Your task to perform on an android device: turn off location Image 0: 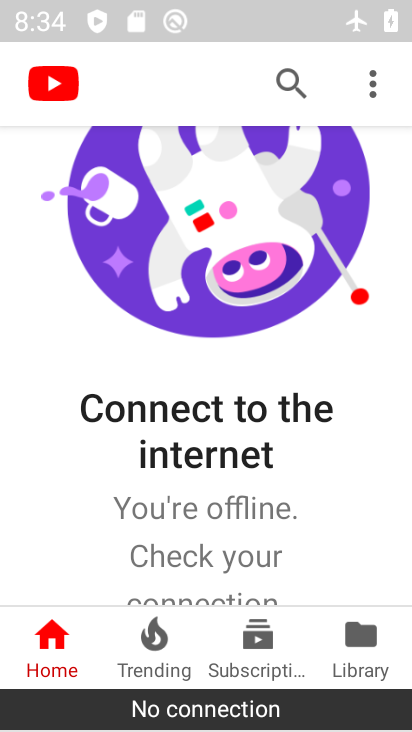
Step 0: press home button
Your task to perform on an android device: turn off location Image 1: 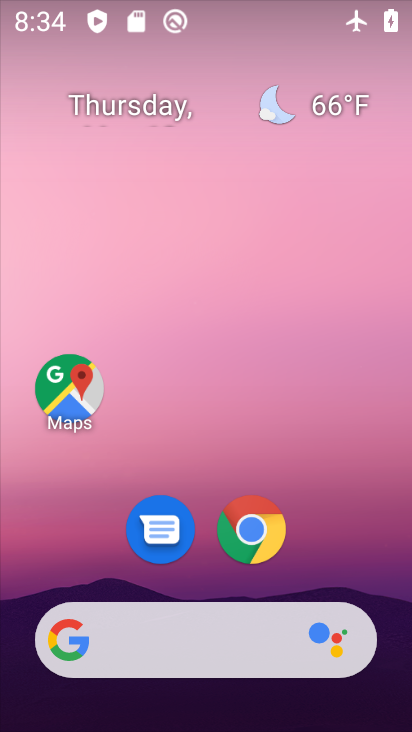
Step 1: drag from (327, 557) to (247, 120)
Your task to perform on an android device: turn off location Image 2: 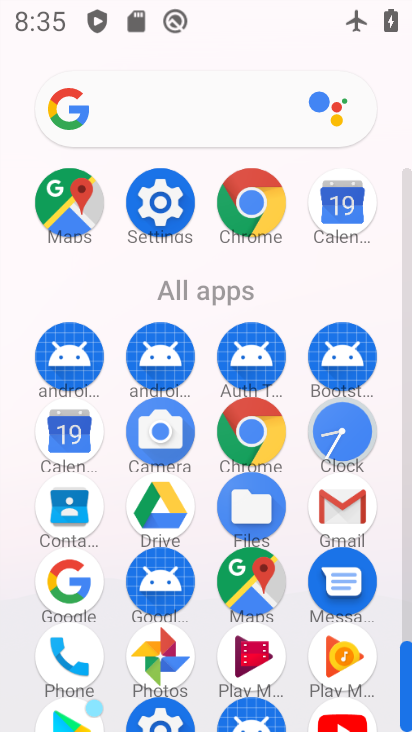
Step 2: click (159, 202)
Your task to perform on an android device: turn off location Image 3: 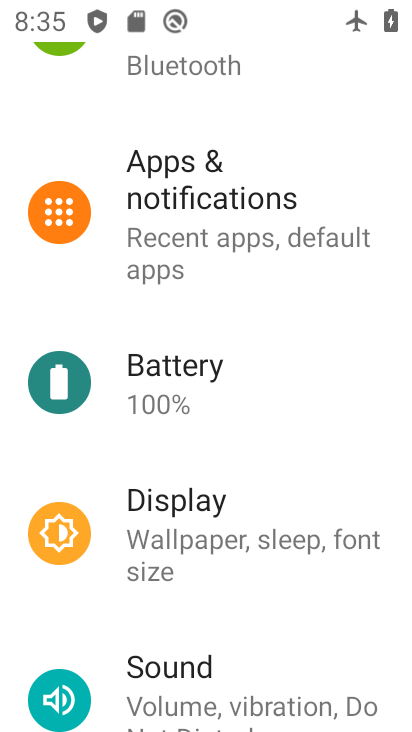
Step 3: drag from (238, 487) to (282, 372)
Your task to perform on an android device: turn off location Image 4: 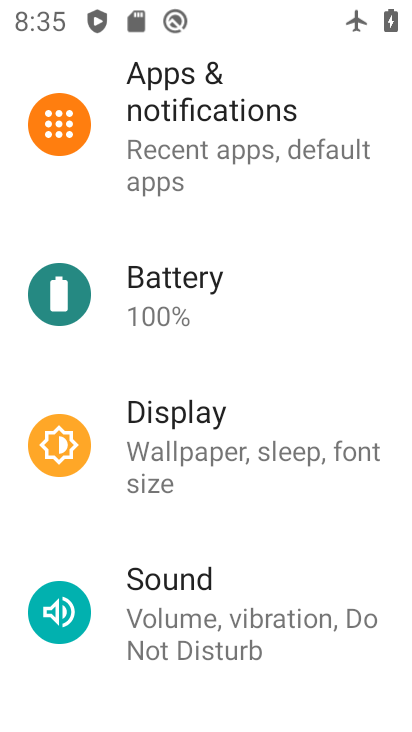
Step 4: drag from (234, 533) to (277, 395)
Your task to perform on an android device: turn off location Image 5: 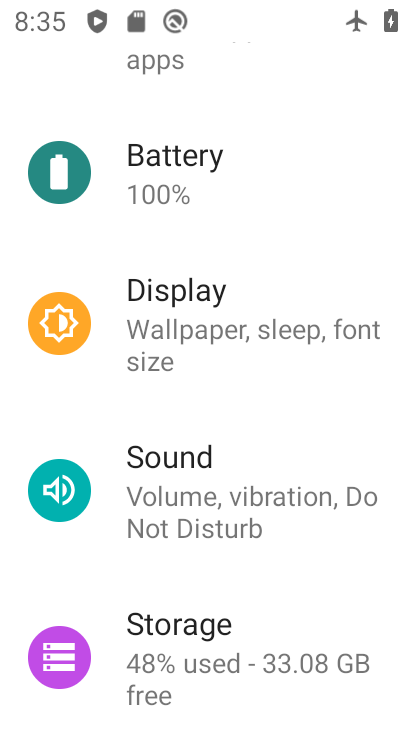
Step 5: drag from (214, 591) to (266, 417)
Your task to perform on an android device: turn off location Image 6: 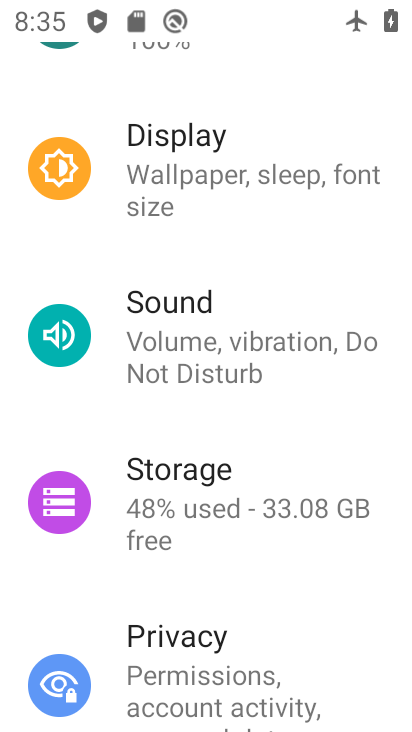
Step 6: drag from (214, 603) to (228, 490)
Your task to perform on an android device: turn off location Image 7: 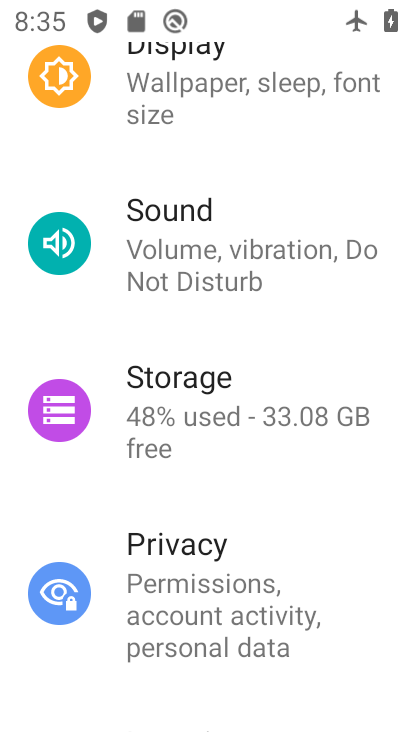
Step 7: drag from (189, 690) to (249, 518)
Your task to perform on an android device: turn off location Image 8: 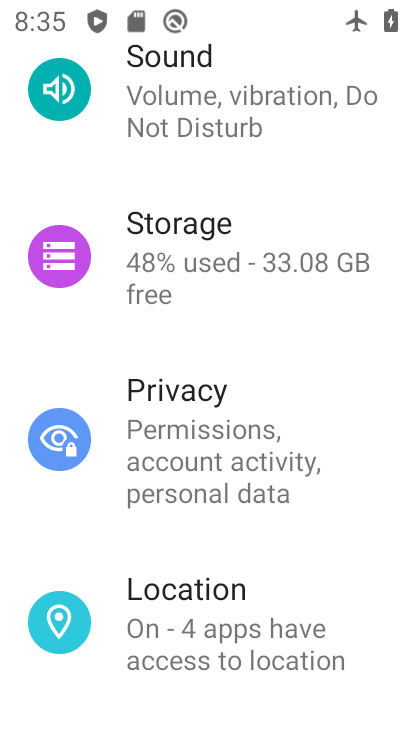
Step 8: drag from (262, 613) to (323, 515)
Your task to perform on an android device: turn off location Image 9: 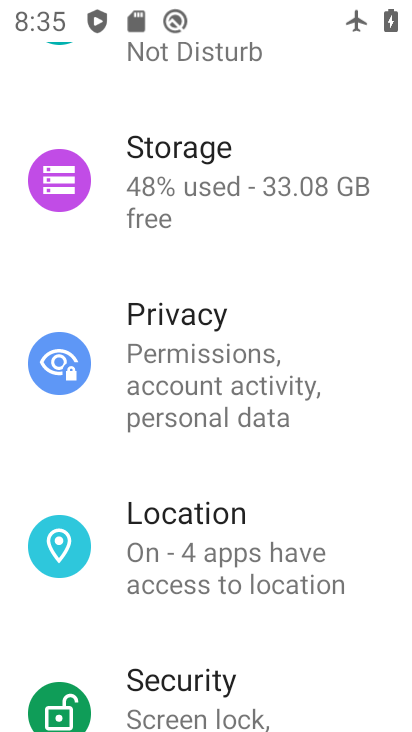
Step 9: click (247, 554)
Your task to perform on an android device: turn off location Image 10: 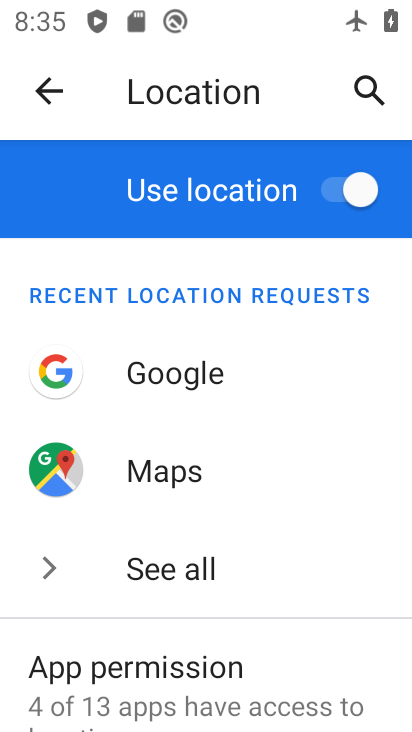
Step 10: click (350, 199)
Your task to perform on an android device: turn off location Image 11: 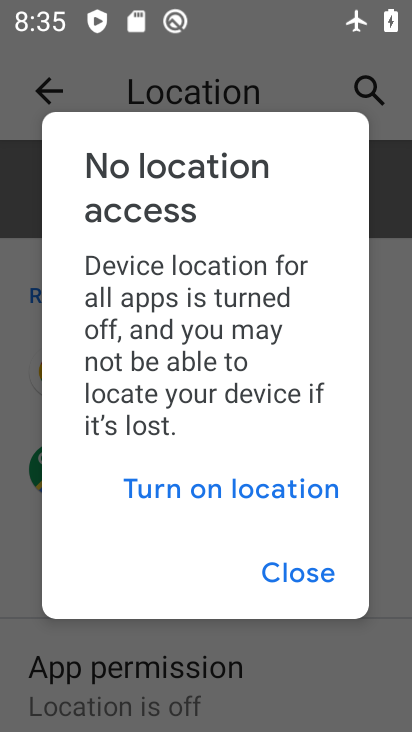
Step 11: click (293, 572)
Your task to perform on an android device: turn off location Image 12: 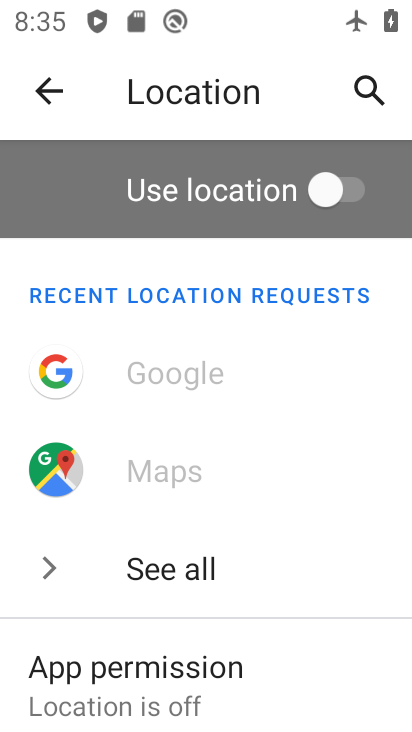
Step 12: task complete